Your task to perform on an android device: When is my next appointment? Image 0: 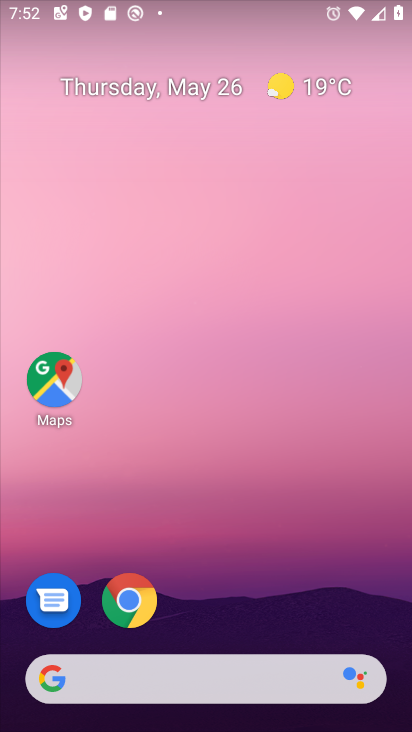
Step 0: press home button
Your task to perform on an android device: When is my next appointment? Image 1: 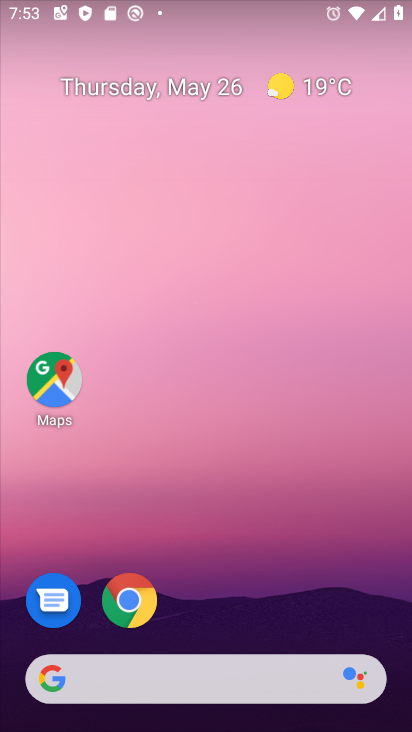
Step 1: drag from (237, 627) to (239, 142)
Your task to perform on an android device: When is my next appointment? Image 2: 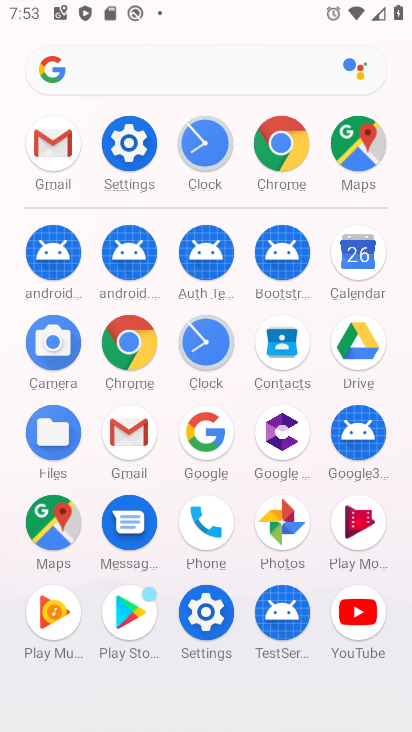
Step 2: click (355, 256)
Your task to perform on an android device: When is my next appointment? Image 3: 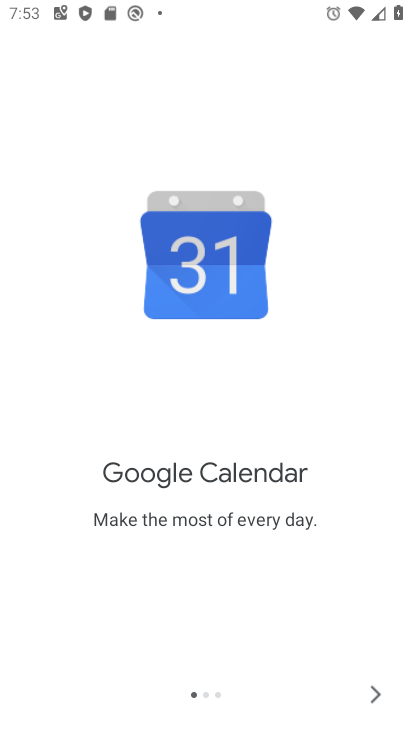
Step 3: click (373, 700)
Your task to perform on an android device: When is my next appointment? Image 4: 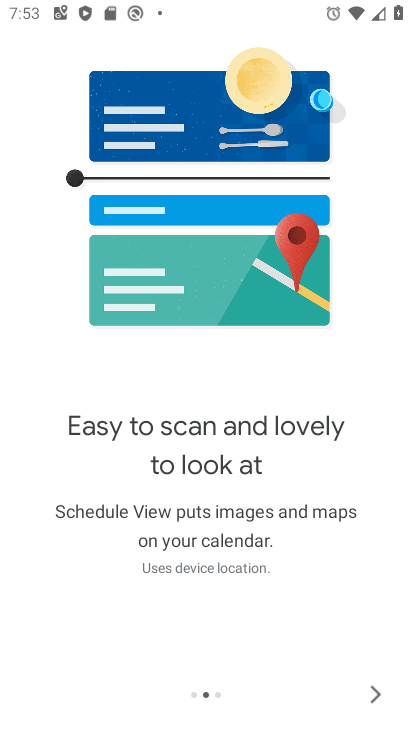
Step 4: click (373, 700)
Your task to perform on an android device: When is my next appointment? Image 5: 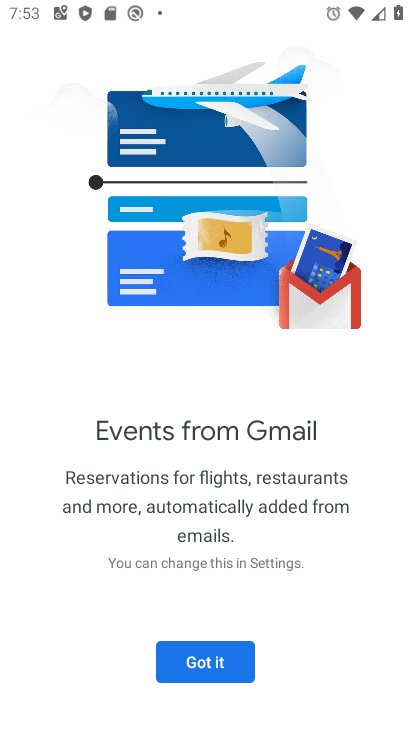
Step 5: click (219, 658)
Your task to perform on an android device: When is my next appointment? Image 6: 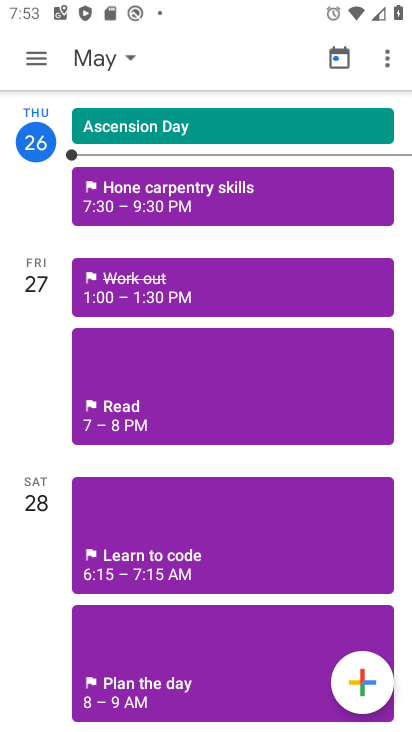
Step 6: click (33, 60)
Your task to perform on an android device: When is my next appointment? Image 7: 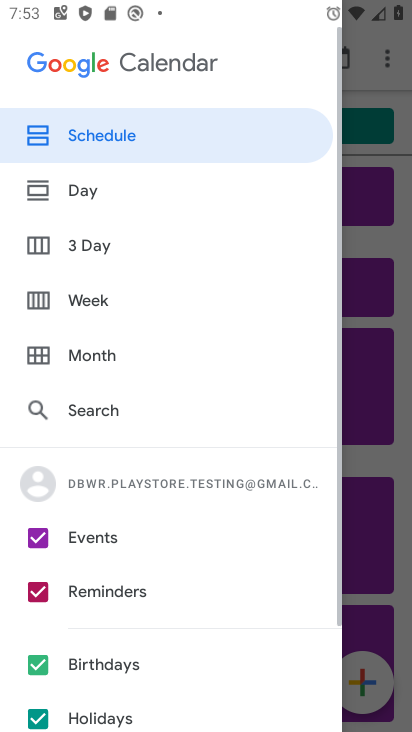
Step 7: click (89, 137)
Your task to perform on an android device: When is my next appointment? Image 8: 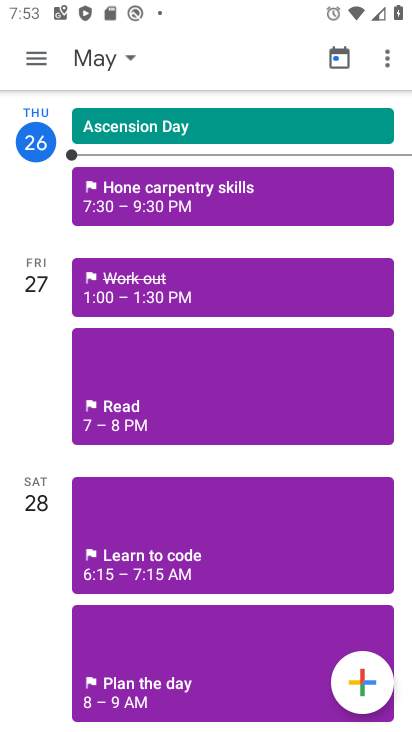
Step 8: task complete